Your task to perform on an android device: turn on showing notifications on the lock screen Image 0: 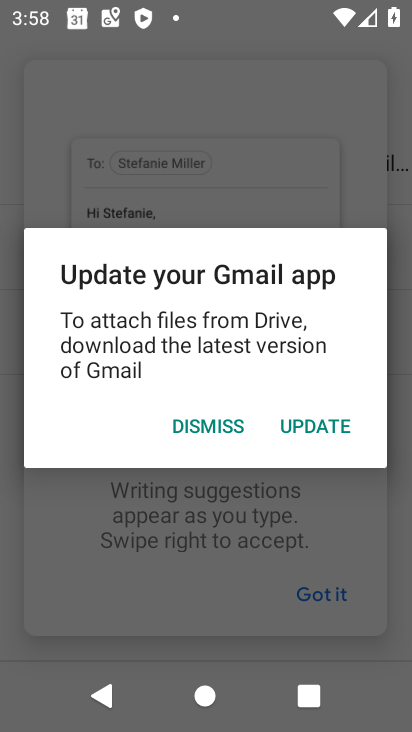
Step 0: press back button
Your task to perform on an android device: turn on showing notifications on the lock screen Image 1: 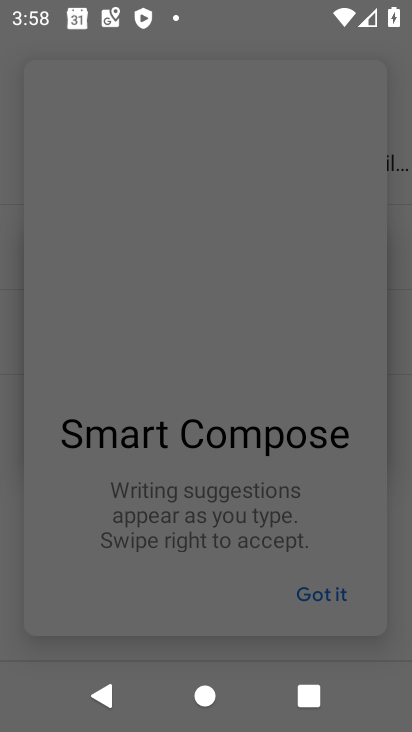
Step 1: press home button
Your task to perform on an android device: turn on showing notifications on the lock screen Image 2: 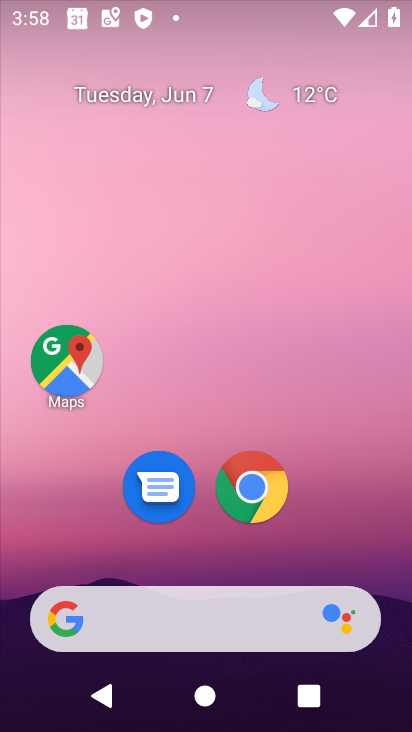
Step 2: drag from (215, 554) to (323, 58)
Your task to perform on an android device: turn on showing notifications on the lock screen Image 3: 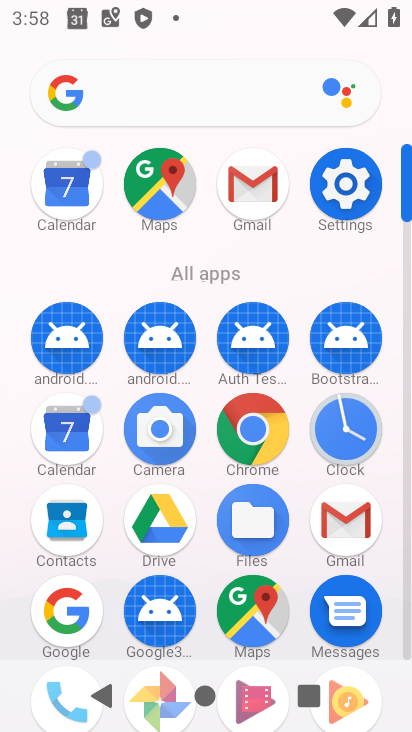
Step 3: click (343, 170)
Your task to perform on an android device: turn on showing notifications on the lock screen Image 4: 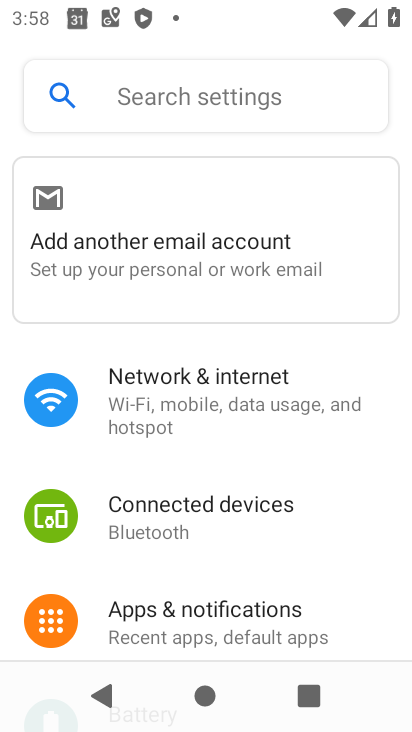
Step 4: click (204, 610)
Your task to perform on an android device: turn on showing notifications on the lock screen Image 5: 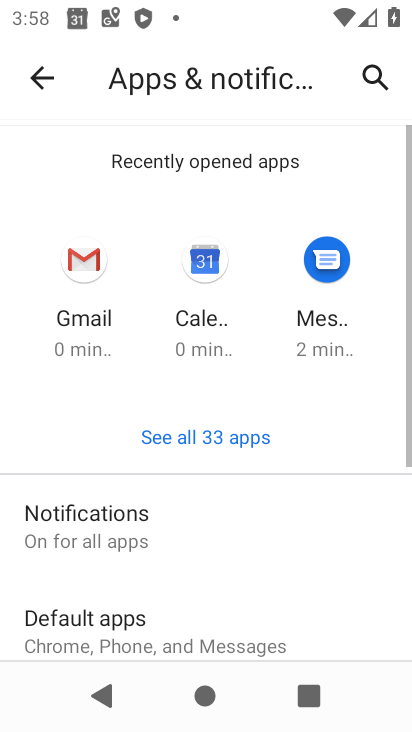
Step 5: drag from (198, 596) to (284, 176)
Your task to perform on an android device: turn on showing notifications on the lock screen Image 6: 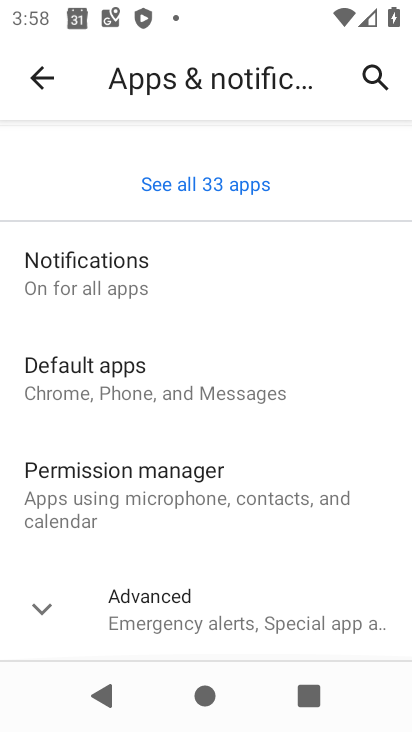
Step 6: click (157, 264)
Your task to perform on an android device: turn on showing notifications on the lock screen Image 7: 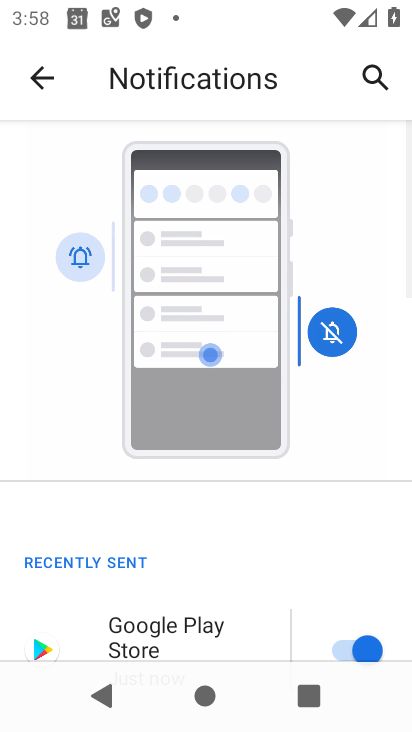
Step 7: drag from (128, 622) to (256, 115)
Your task to perform on an android device: turn on showing notifications on the lock screen Image 8: 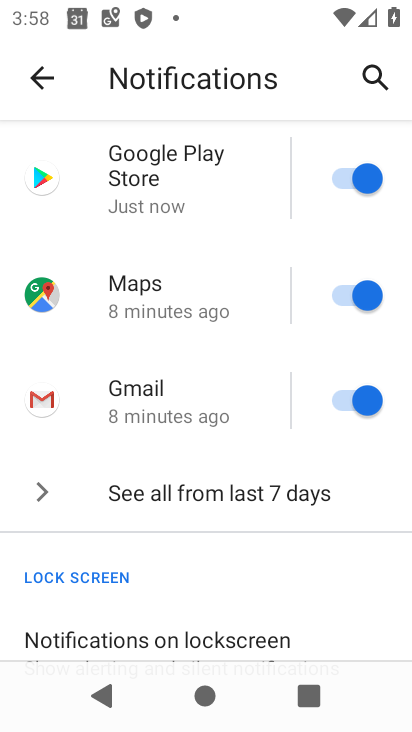
Step 8: click (175, 620)
Your task to perform on an android device: turn on showing notifications on the lock screen Image 9: 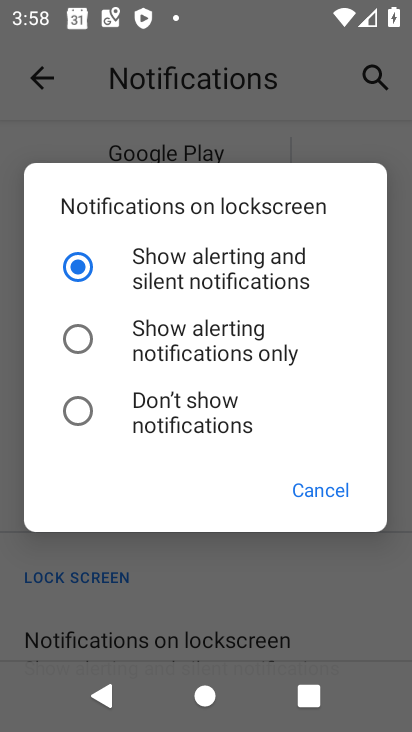
Step 9: task complete